Your task to perform on an android device: What's the weather going to be tomorrow? Image 0: 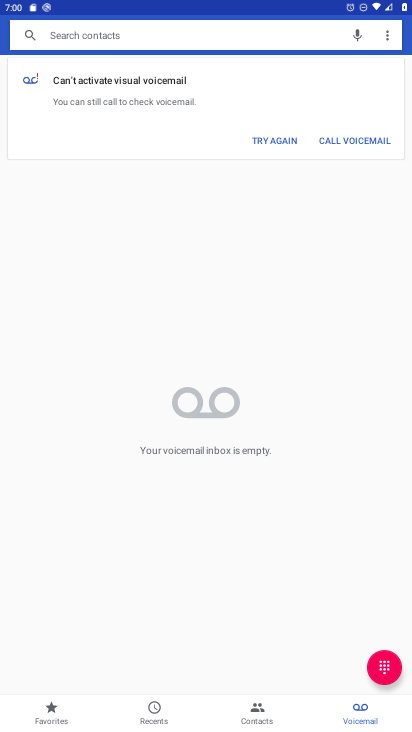
Step 0: press home button
Your task to perform on an android device: What's the weather going to be tomorrow? Image 1: 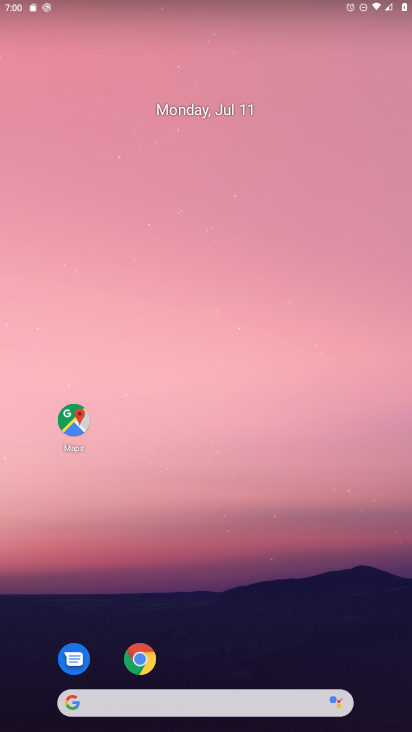
Step 1: task complete